Your task to perform on an android device: Open calendar and show me the first week of next month Image 0: 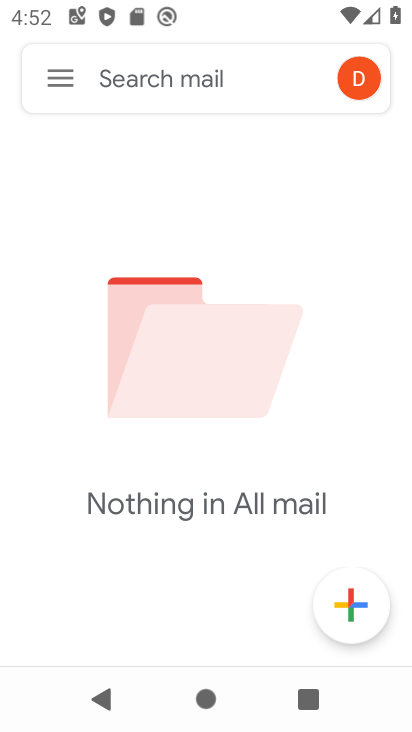
Step 0: press home button
Your task to perform on an android device: Open calendar and show me the first week of next month Image 1: 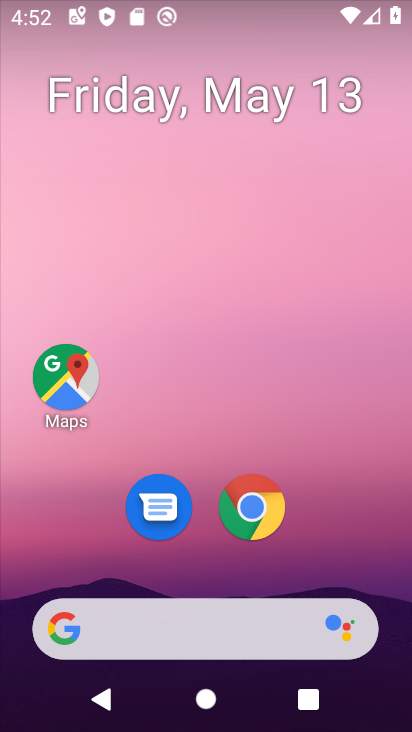
Step 1: drag from (332, 524) to (259, 112)
Your task to perform on an android device: Open calendar and show me the first week of next month Image 2: 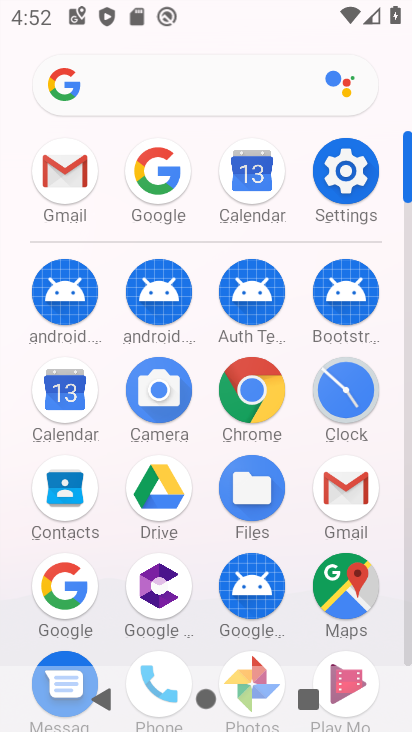
Step 2: click (65, 382)
Your task to perform on an android device: Open calendar and show me the first week of next month Image 3: 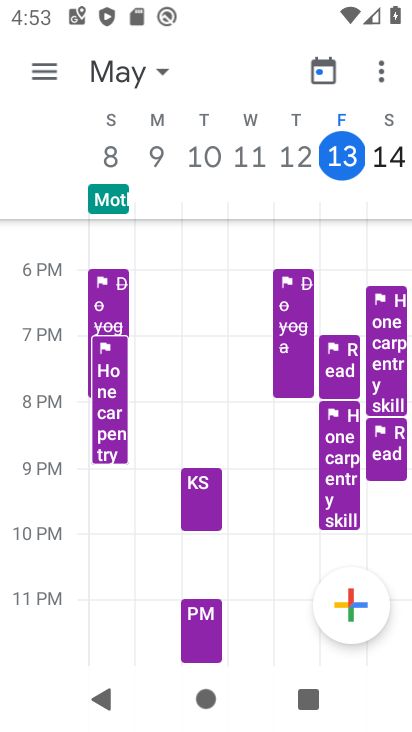
Step 3: click (161, 67)
Your task to perform on an android device: Open calendar and show me the first week of next month Image 4: 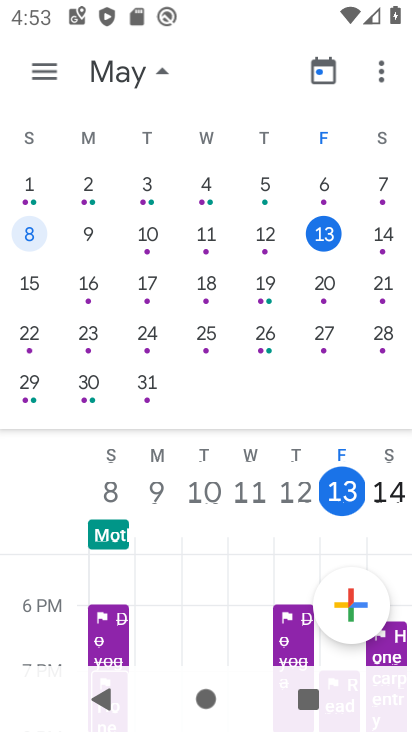
Step 4: task complete